Your task to perform on an android device: turn on javascript in the chrome app Image 0: 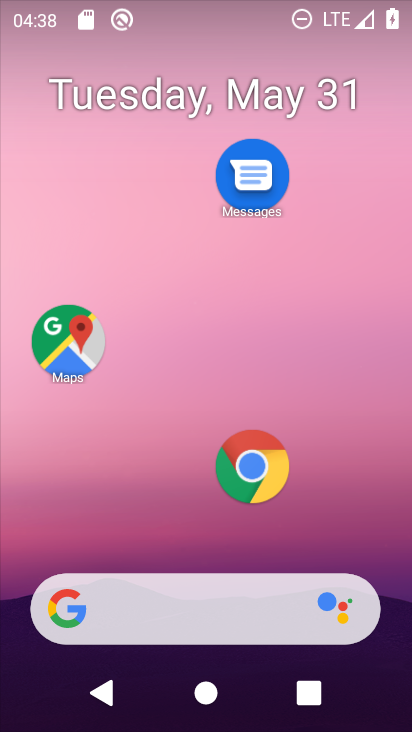
Step 0: click (257, 464)
Your task to perform on an android device: turn on javascript in the chrome app Image 1: 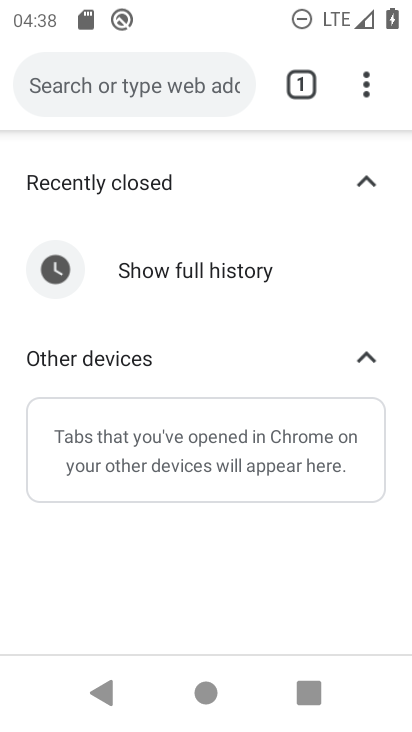
Step 1: drag from (364, 91) to (96, 527)
Your task to perform on an android device: turn on javascript in the chrome app Image 2: 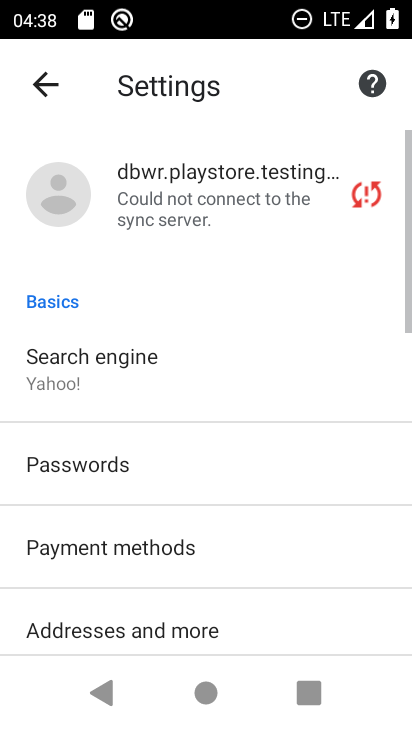
Step 2: drag from (146, 633) to (226, 98)
Your task to perform on an android device: turn on javascript in the chrome app Image 3: 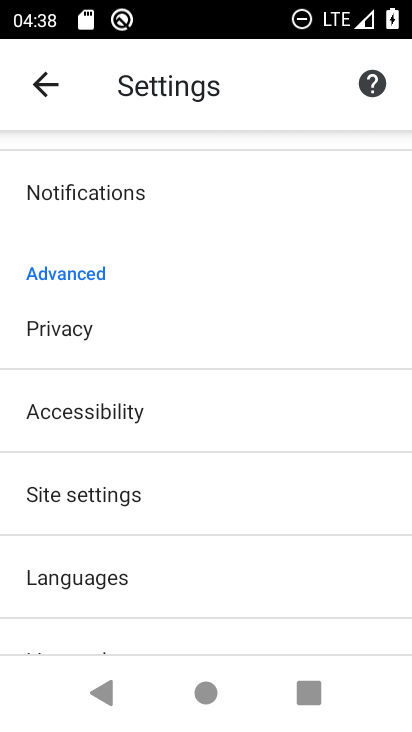
Step 3: click (91, 503)
Your task to perform on an android device: turn on javascript in the chrome app Image 4: 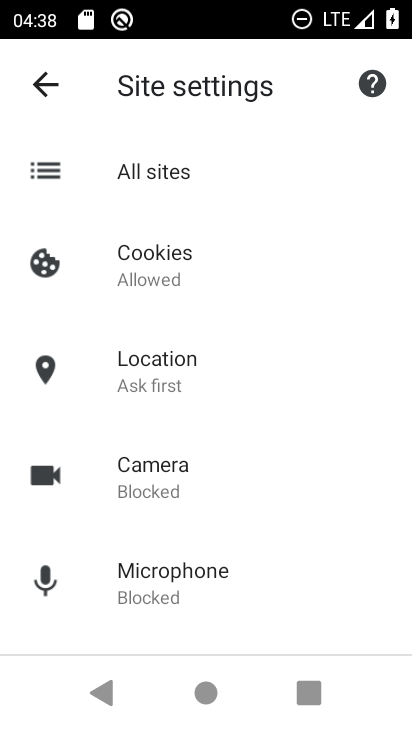
Step 4: drag from (178, 615) to (242, 164)
Your task to perform on an android device: turn on javascript in the chrome app Image 5: 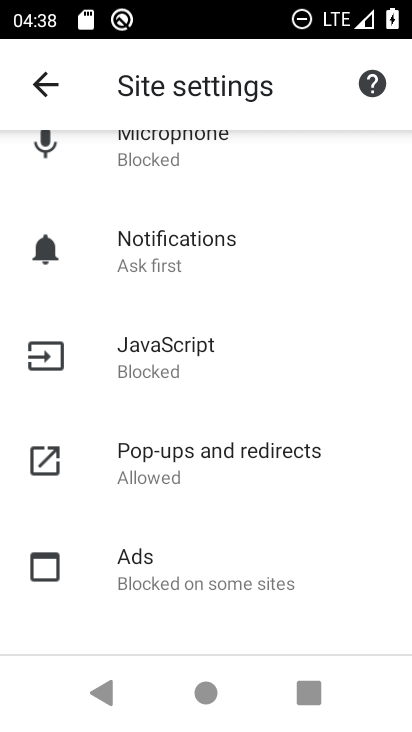
Step 5: click (167, 336)
Your task to perform on an android device: turn on javascript in the chrome app Image 6: 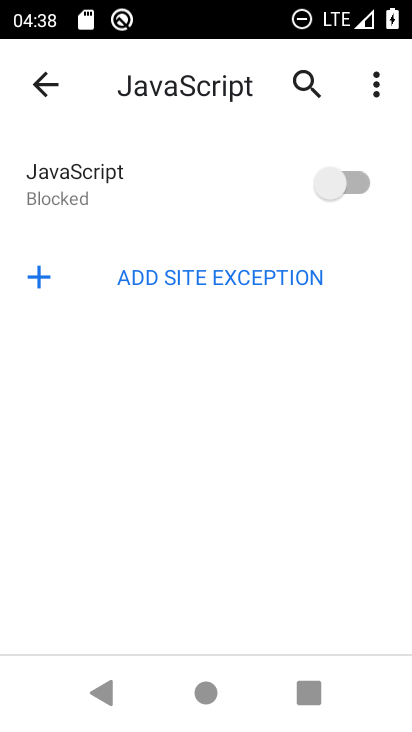
Step 6: click (337, 175)
Your task to perform on an android device: turn on javascript in the chrome app Image 7: 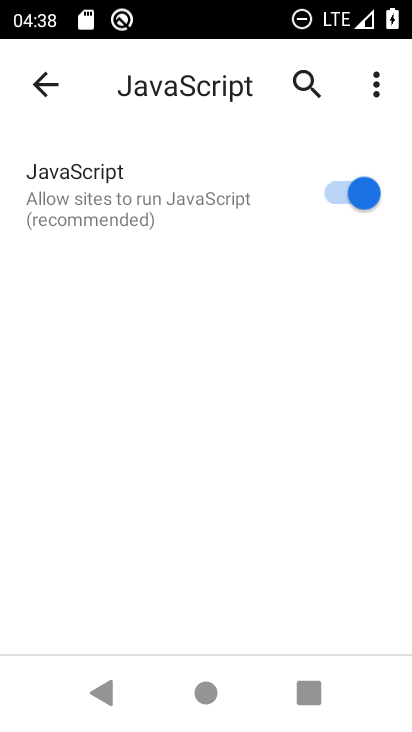
Step 7: task complete